Your task to perform on an android device: clear history in the chrome app Image 0: 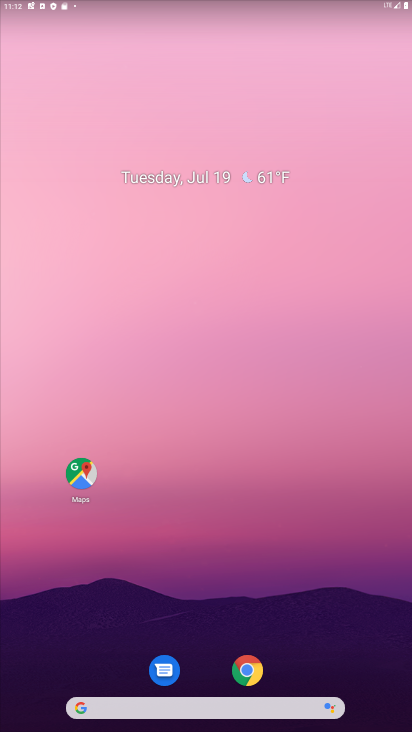
Step 0: click (252, 681)
Your task to perform on an android device: clear history in the chrome app Image 1: 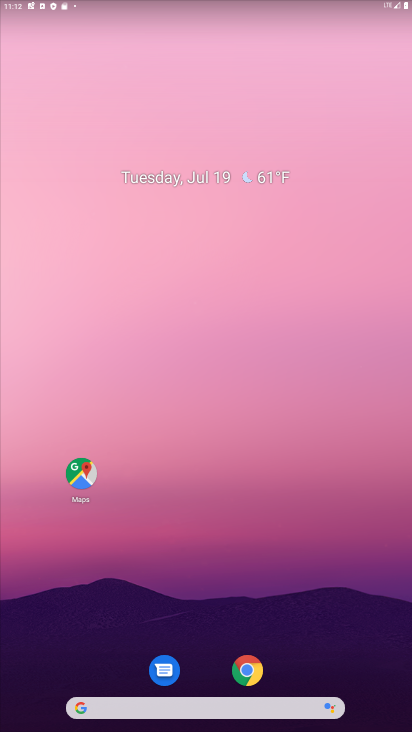
Step 1: click (252, 681)
Your task to perform on an android device: clear history in the chrome app Image 2: 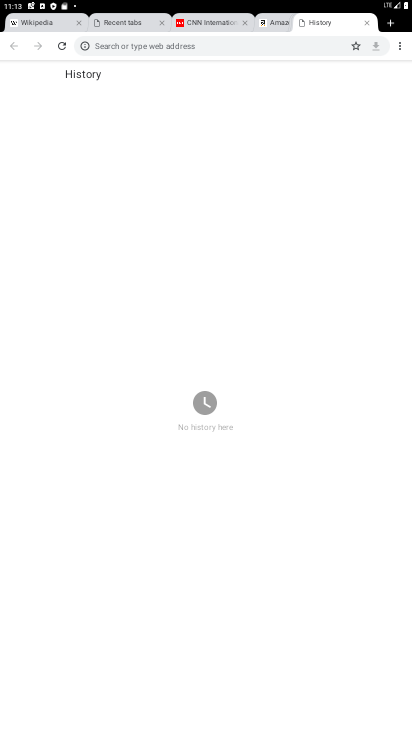
Step 2: task complete